Your task to perform on an android device: Open Chrome and go to settings Image 0: 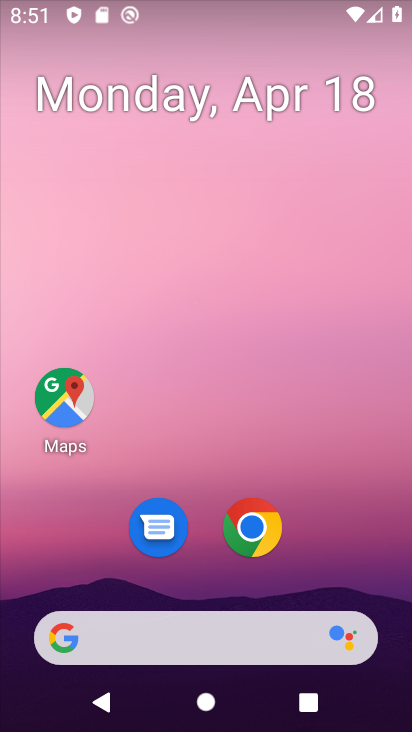
Step 0: drag from (323, 562) to (323, 78)
Your task to perform on an android device: Open Chrome and go to settings Image 1: 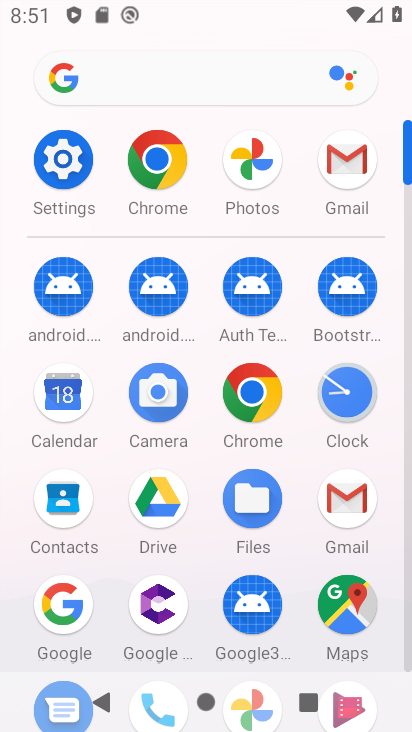
Step 1: click (248, 393)
Your task to perform on an android device: Open Chrome and go to settings Image 2: 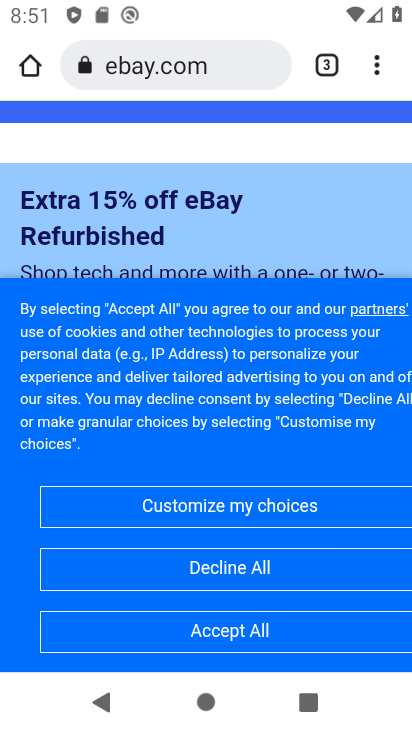
Step 2: task complete